Your task to perform on an android device: Go to Yahoo.com Image 0: 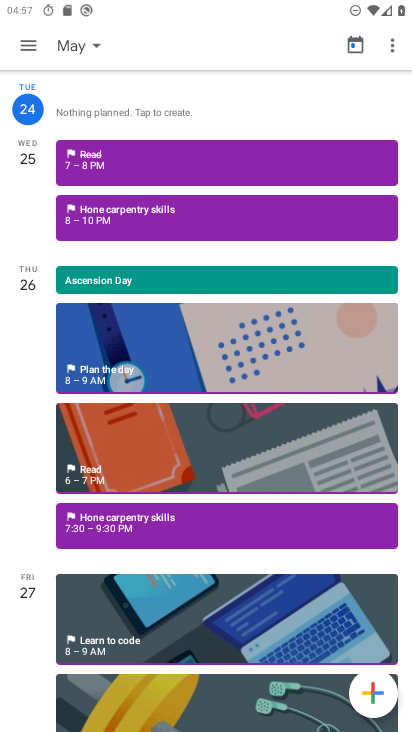
Step 0: drag from (196, 641) to (217, 547)
Your task to perform on an android device: Go to Yahoo.com Image 1: 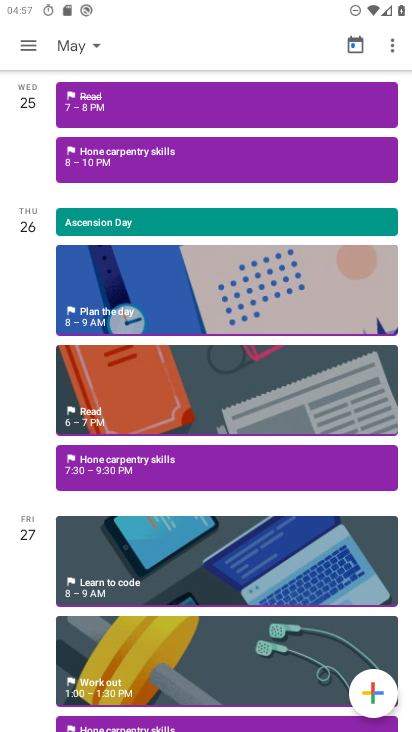
Step 1: press home button
Your task to perform on an android device: Go to Yahoo.com Image 2: 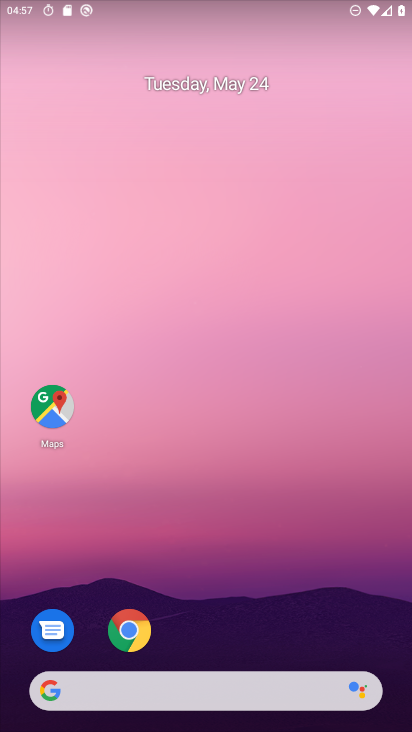
Step 2: click (133, 623)
Your task to perform on an android device: Go to Yahoo.com Image 3: 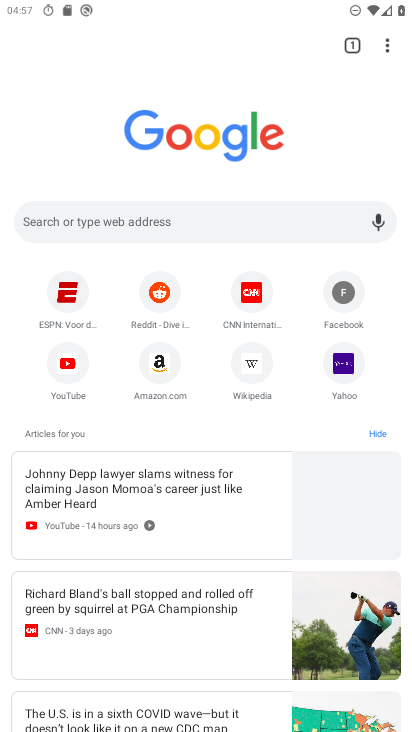
Step 3: click (338, 365)
Your task to perform on an android device: Go to Yahoo.com Image 4: 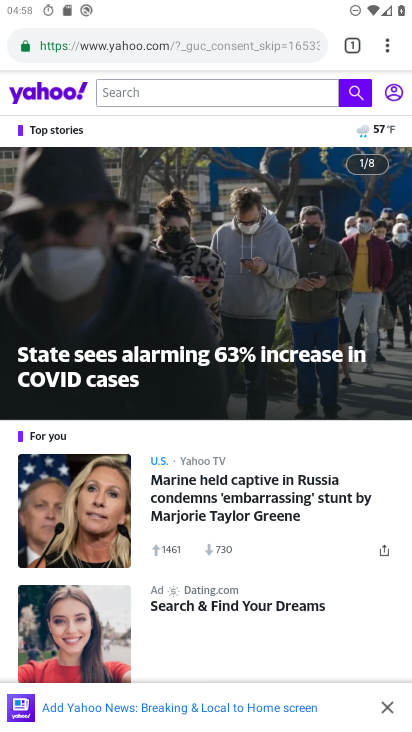
Step 4: task complete